Your task to perform on an android device: Open calendar and show me the second week of next month Image 0: 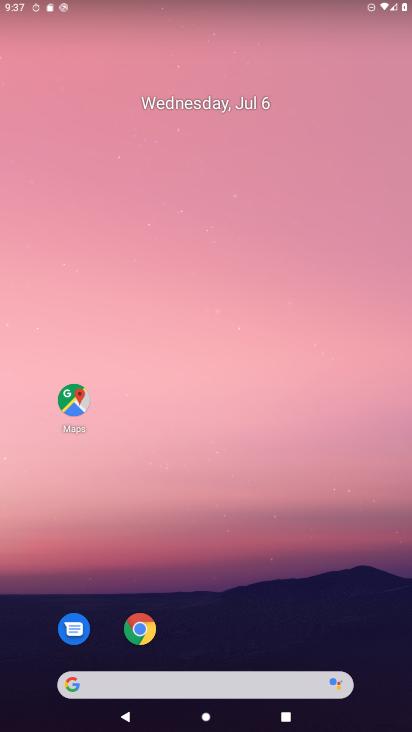
Step 0: drag from (236, 706) to (212, 68)
Your task to perform on an android device: Open calendar and show me the second week of next month Image 1: 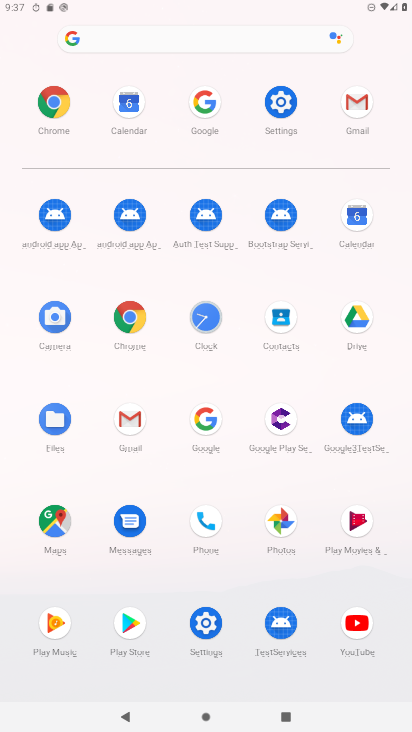
Step 1: click (357, 212)
Your task to perform on an android device: Open calendar and show me the second week of next month Image 2: 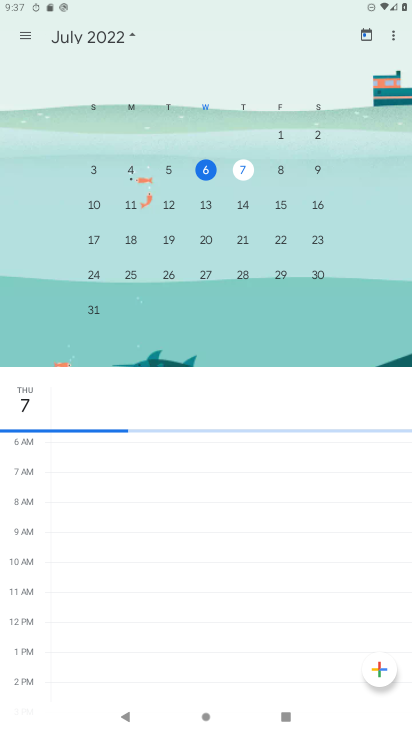
Step 2: click (124, 202)
Your task to perform on an android device: Open calendar and show me the second week of next month Image 3: 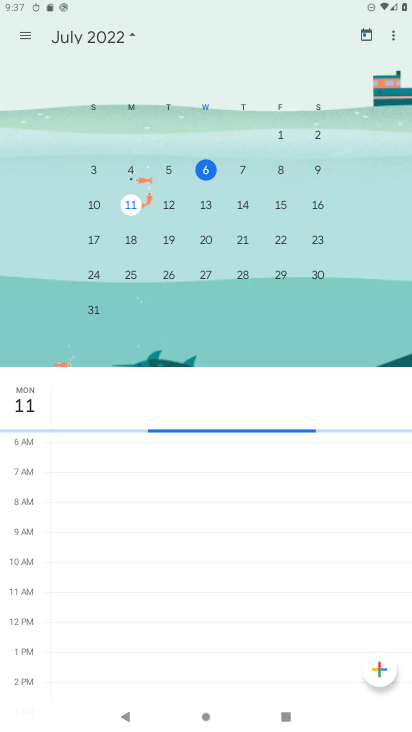
Step 3: click (124, 202)
Your task to perform on an android device: Open calendar and show me the second week of next month Image 4: 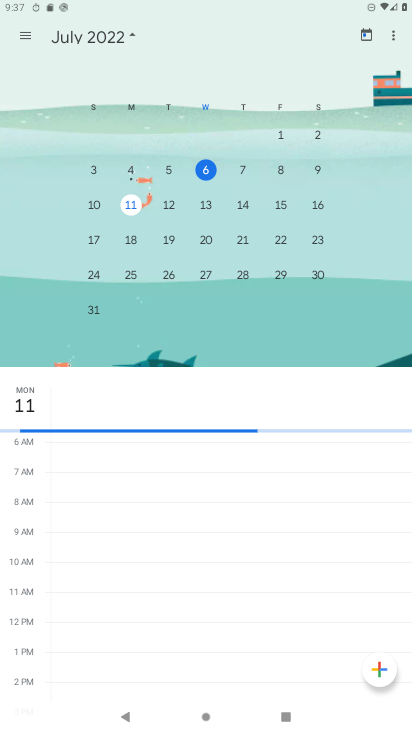
Step 4: click (24, 31)
Your task to perform on an android device: Open calendar and show me the second week of next month Image 5: 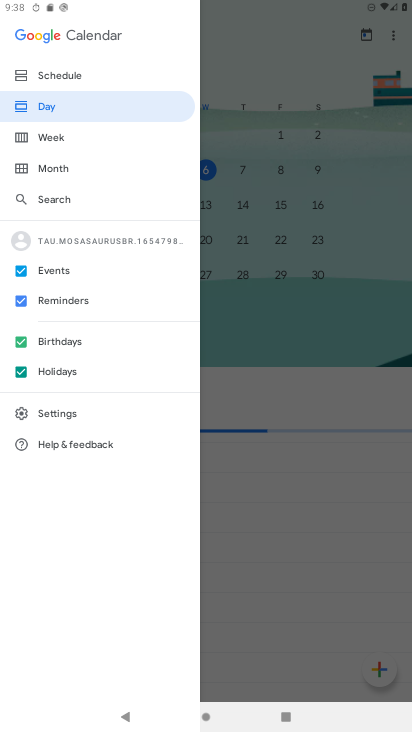
Step 5: click (51, 133)
Your task to perform on an android device: Open calendar and show me the second week of next month Image 6: 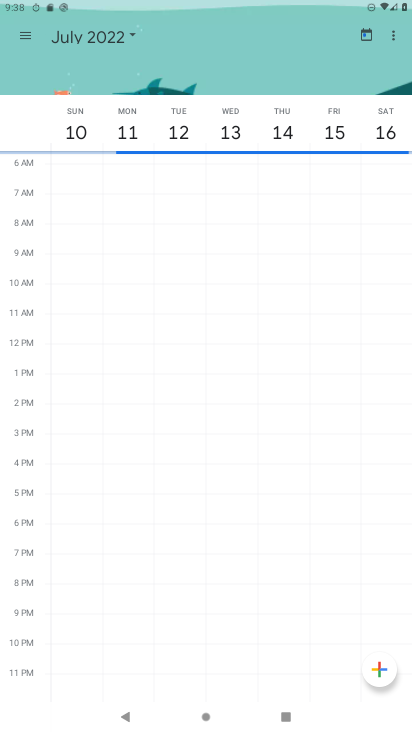
Step 6: task complete